Your task to perform on an android device: Search for pizza restaurants on Maps Image 0: 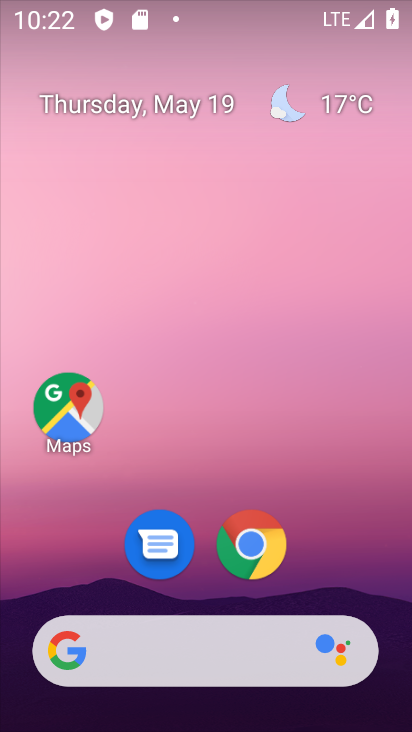
Step 0: click (74, 424)
Your task to perform on an android device: Search for pizza restaurants on Maps Image 1: 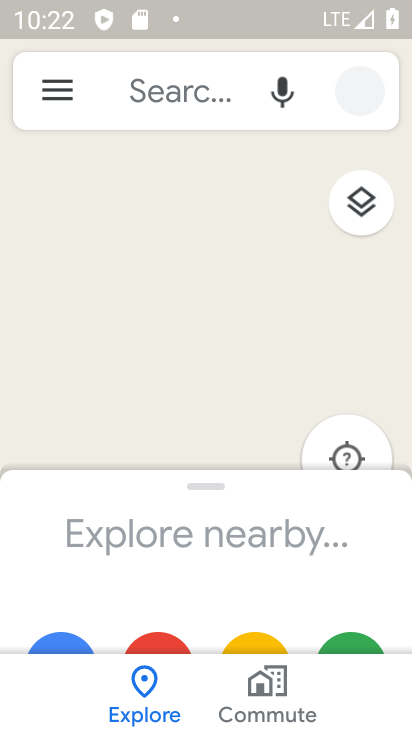
Step 1: click (148, 96)
Your task to perform on an android device: Search for pizza restaurants on Maps Image 2: 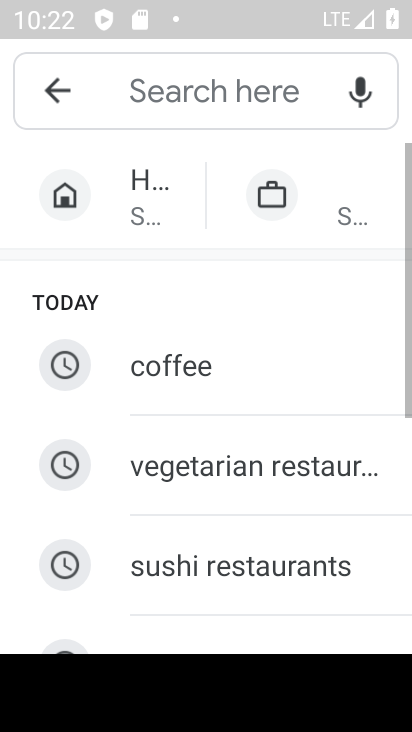
Step 2: drag from (199, 315) to (199, 201)
Your task to perform on an android device: Search for pizza restaurants on Maps Image 3: 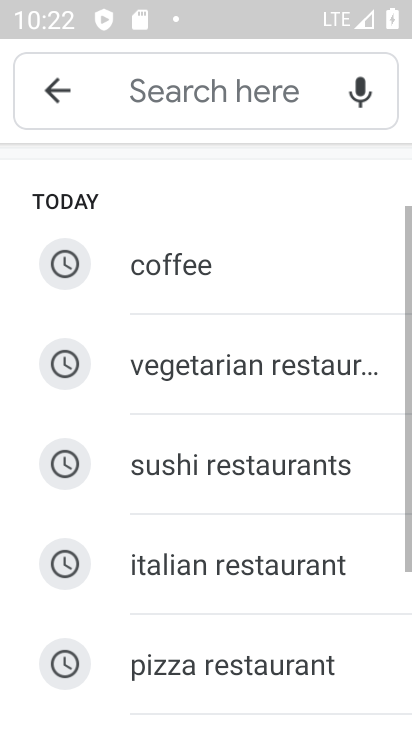
Step 3: click (193, 658)
Your task to perform on an android device: Search for pizza restaurants on Maps Image 4: 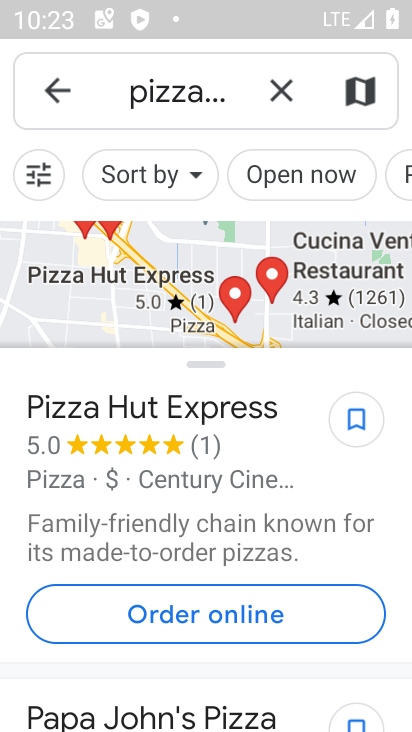
Step 4: task complete